Your task to perform on an android device: Search for seafood restaurants on Google Maps Image 0: 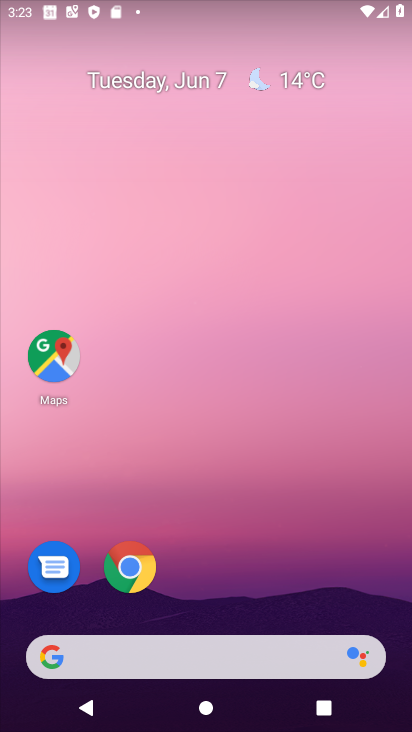
Step 0: click (48, 356)
Your task to perform on an android device: Search for seafood restaurants on Google Maps Image 1: 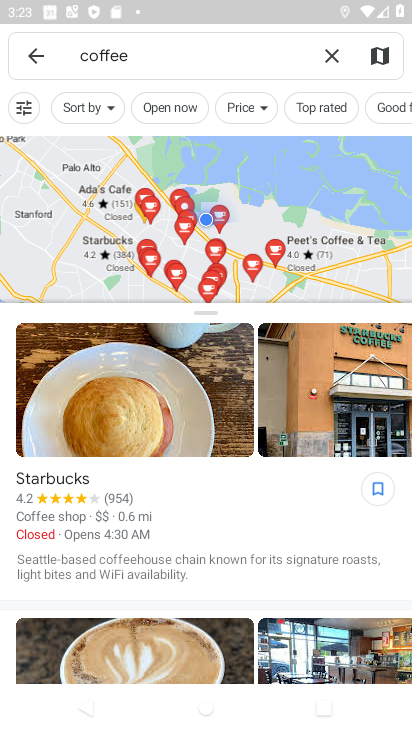
Step 1: click (322, 59)
Your task to perform on an android device: Search for seafood restaurants on Google Maps Image 2: 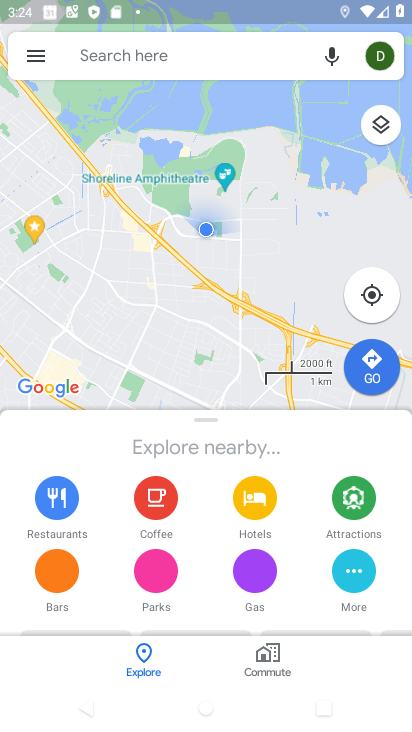
Step 2: click (204, 50)
Your task to perform on an android device: Search for seafood restaurants on Google Maps Image 3: 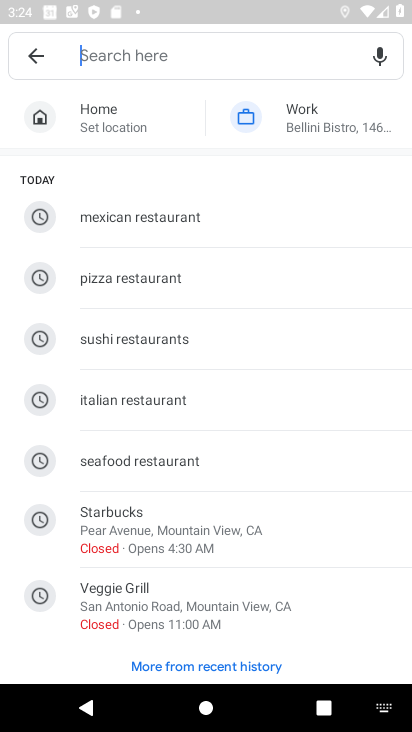
Step 3: click (213, 458)
Your task to perform on an android device: Search for seafood restaurants on Google Maps Image 4: 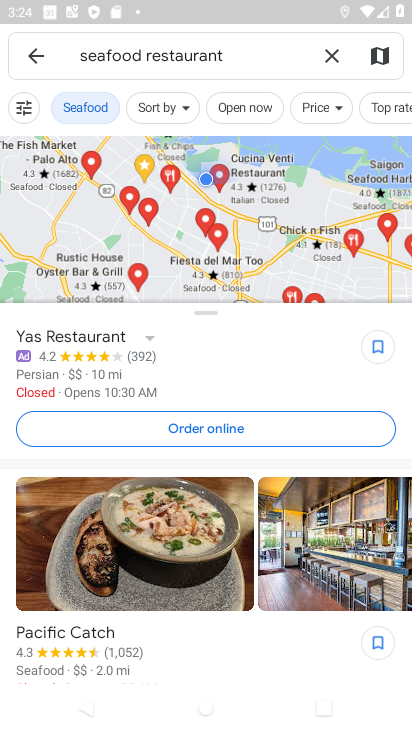
Step 4: task complete